Your task to perform on an android device: Show me the alarms in the clock app Image 0: 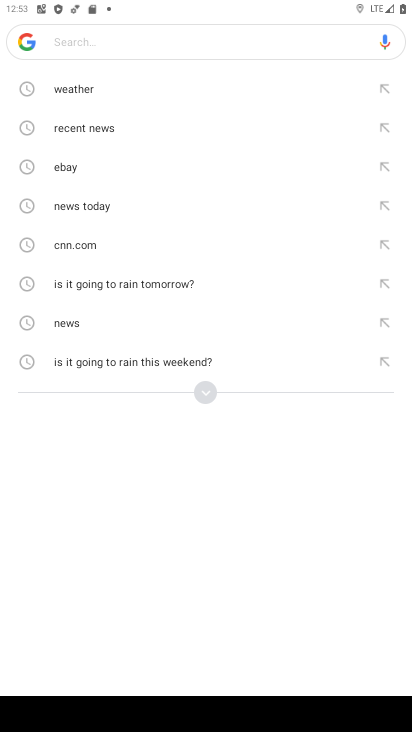
Step 0: press home button
Your task to perform on an android device: Show me the alarms in the clock app Image 1: 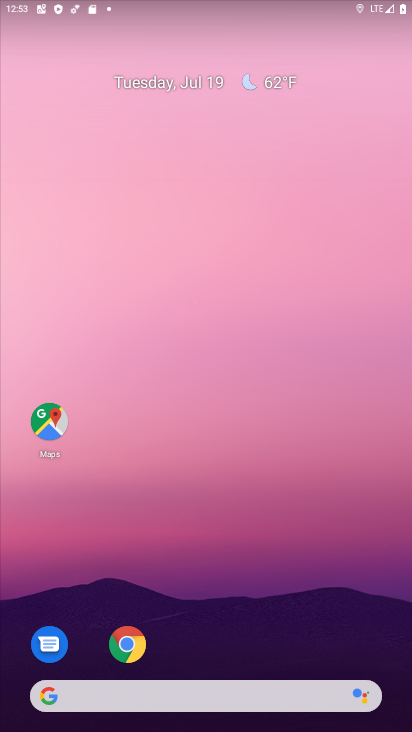
Step 1: drag from (211, 604) to (182, 156)
Your task to perform on an android device: Show me the alarms in the clock app Image 2: 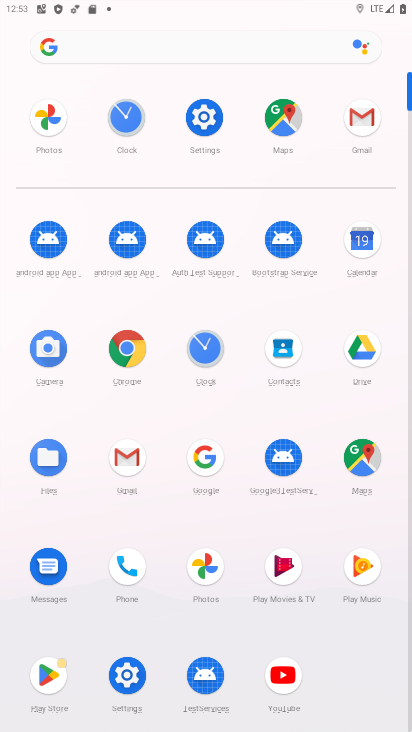
Step 2: click (123, 117)
Your task to perform on an android device: Show me the alarms in the clock app Image 3: 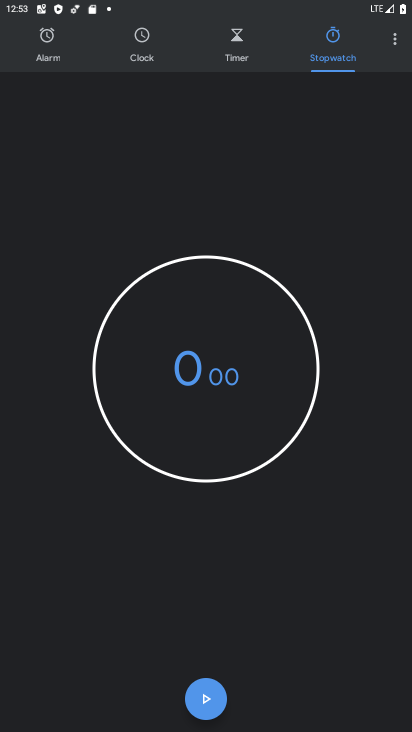
Step 3: click (45, 43)
Your task to perform on an android device: Show me the alarms in the clock app Image 4: 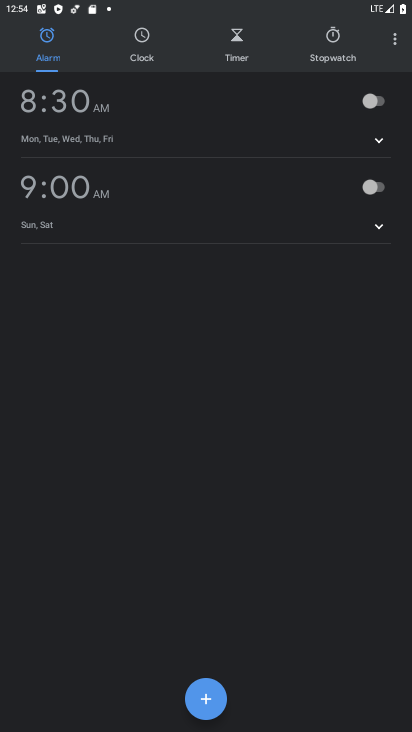
Step 4: task complete